Your task to perform on an android device: Open notification settings Image 0: 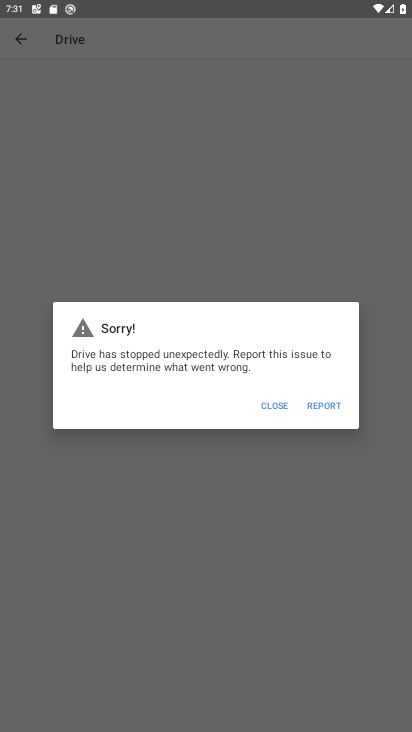
Step 0: press home button
Your task to perform on an android device: Open notification settings Image 1: 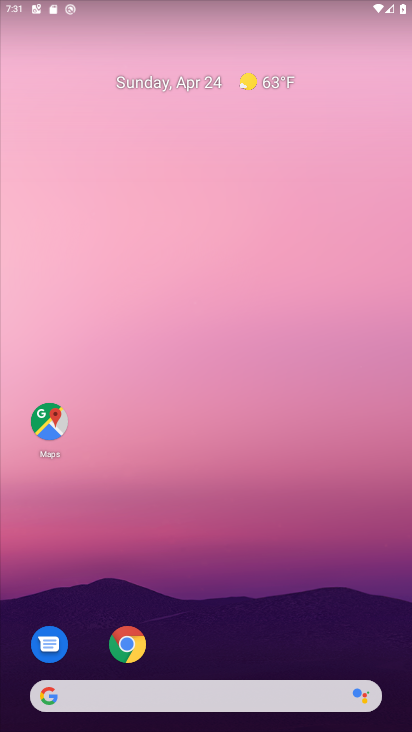
Step 1: drag from (200, 660) to (165, 2)
Your task to perform on an android device: Open notification settings Image 2: 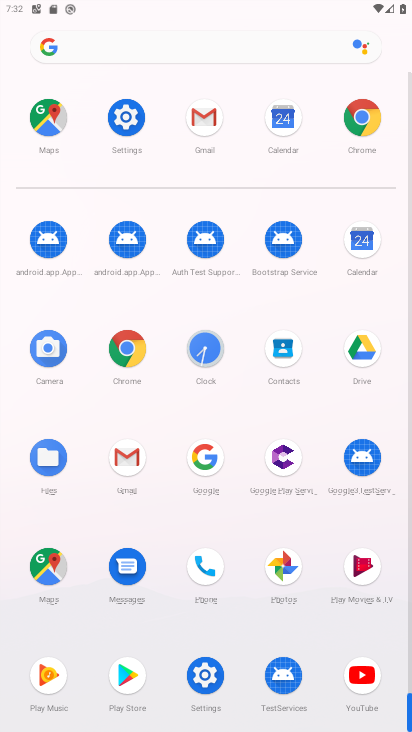
Step 2: click (119, 112)
Your task to perform on an android device: Open notification settings Image 3: 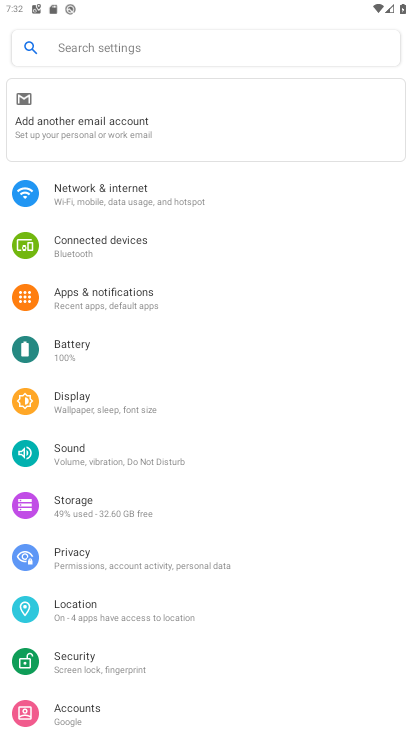
Step 3: click (131, 295)
Your task to perform on an android device: Open notification settings Image 4: 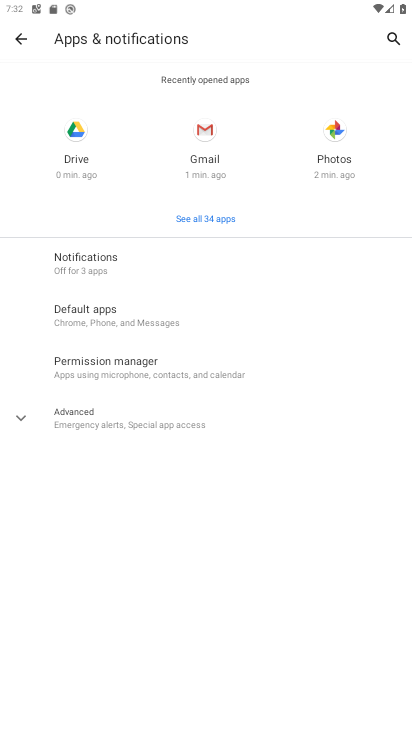
Step 4: click (128, 258)
Your task to perform on an android device: Open notification settings Image 5: 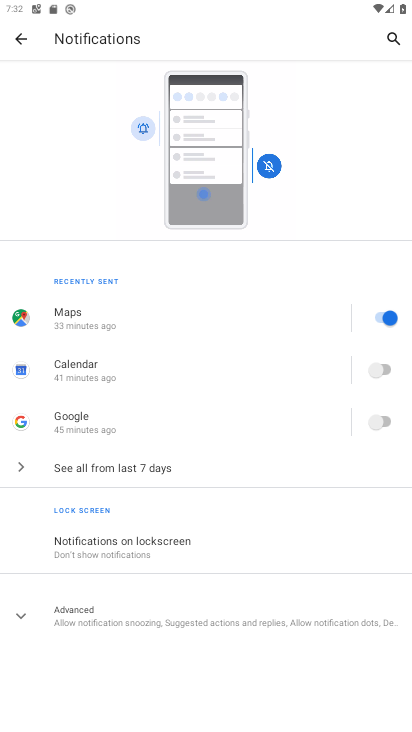
Step 5: click (380, 311)
Your task to perform on an android device: Open notification settings Image 6: 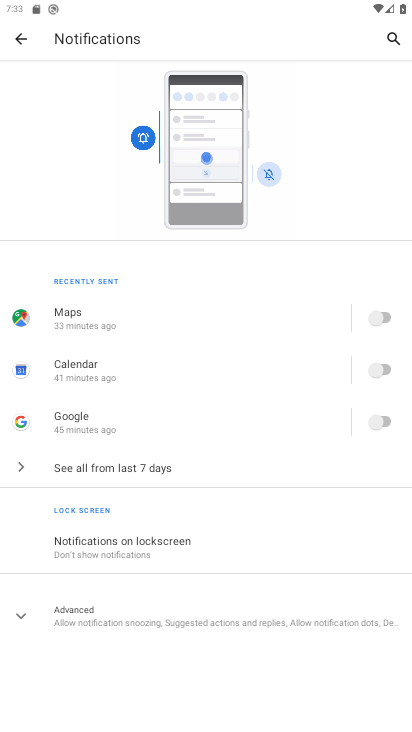
Step 6: click (138, 542)
Your task to perform on an android device: Open notification settings Image 7: 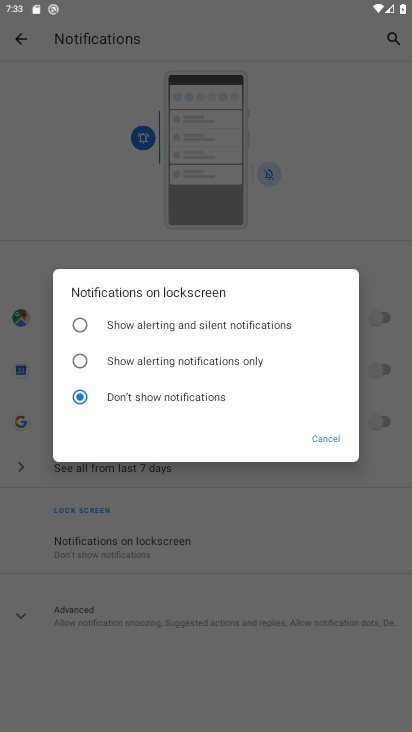
Step 7: click (84, 321)
Your task to perform on an android device: Open notification settings Image 8: 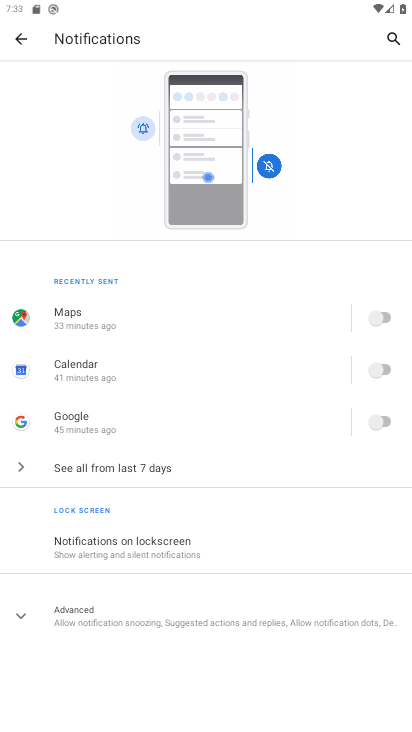
Step 8: click (201, 552)
Your task to perform on an android device: Open notification settings Image 9: 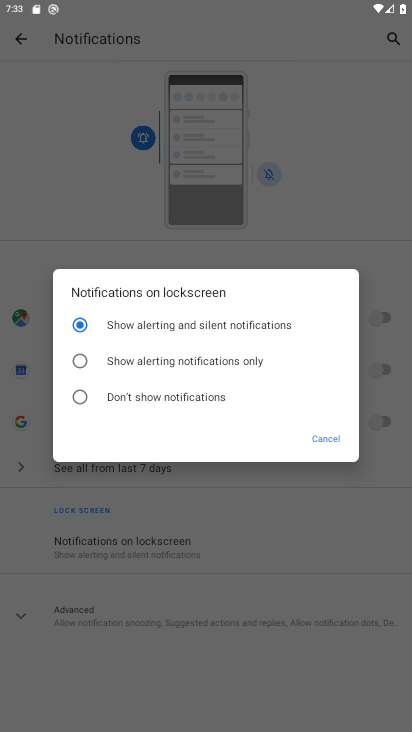
Step 9: task complete